Your task to perform on an android device: turn on notifications settings in the gmail app Image 0: 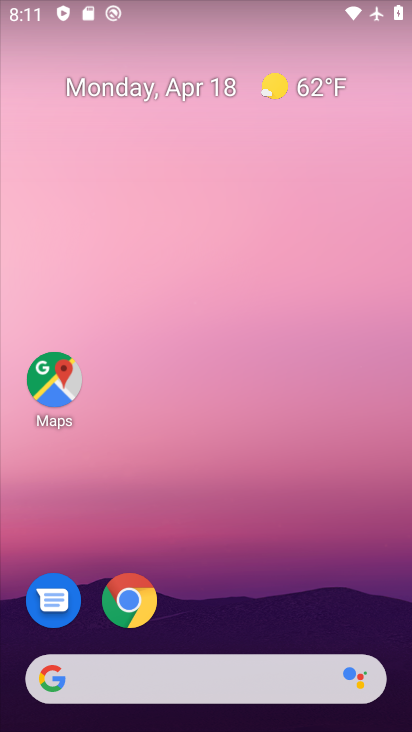
Step 0: drag from (203, 632) to (199, 54)
Your task to perform on an android device: turn on notifications settings in the gmail app Image 1: 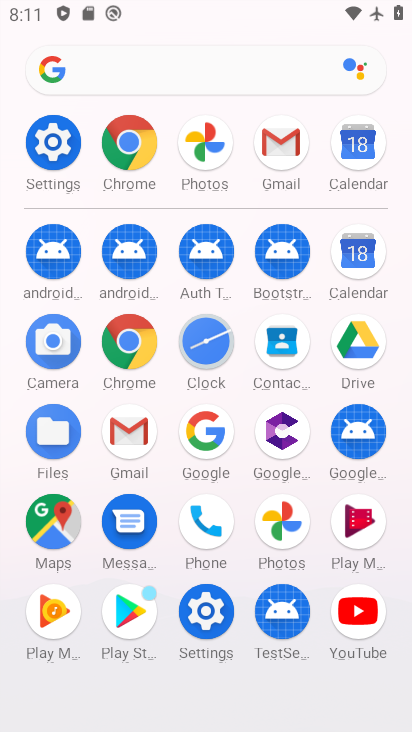
Step 1: click (118, 447)
Your task to perform on an android device: turn on notifications settings in the gmail app Image 2: 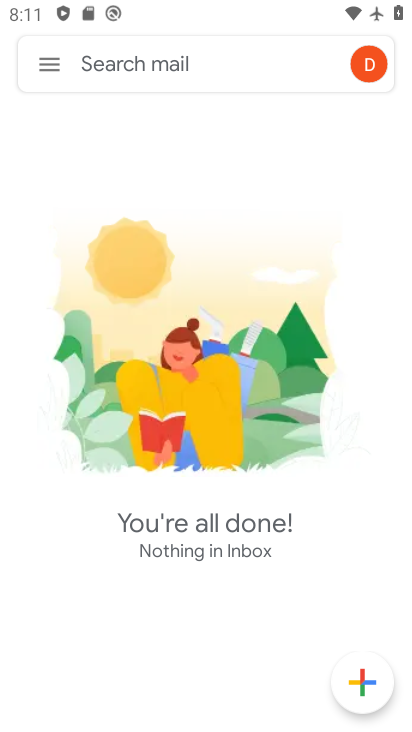
Step 2: click (44, 65)
Your task to perform on an android device: turn on notifications settings in the gmail app Image 3: 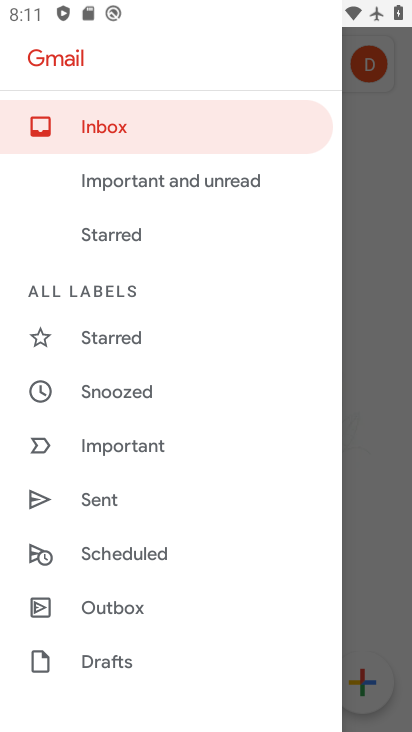
Step 3: drag from (138, 585) to (111, 166)
Your task to perform on an android device: turn on notifications settings in the gmail app Image 4: 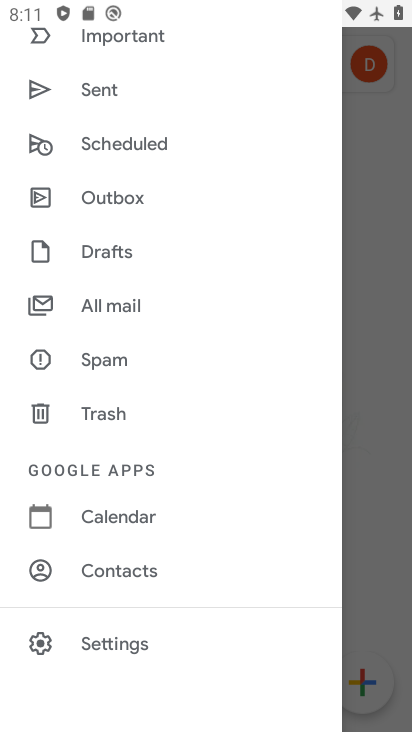
Step 4: click (112, 637)
Your task to perform on an android device: turn on notifications settings in the gmail app Image 5: 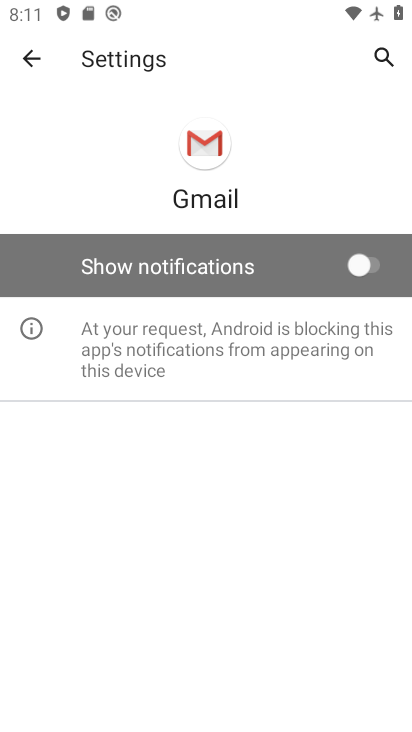
Step 5: click (345, 268)
Your task to perform on an android device: turn on notifications settings in the gmail app Image 6: 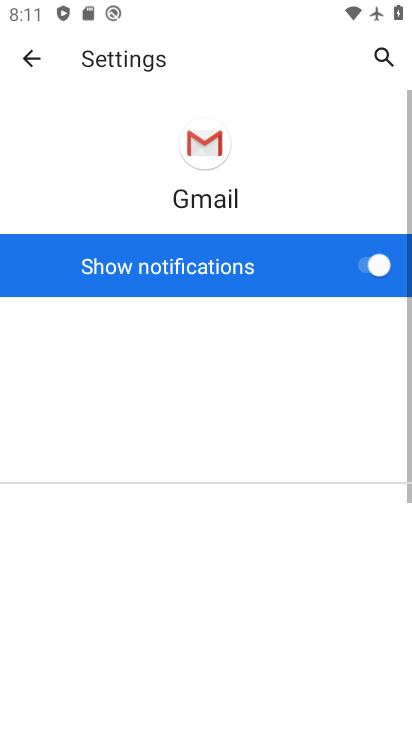
Step 6: task complete